Your task to perform on an android device: change the clock display to show seconds Image 0: 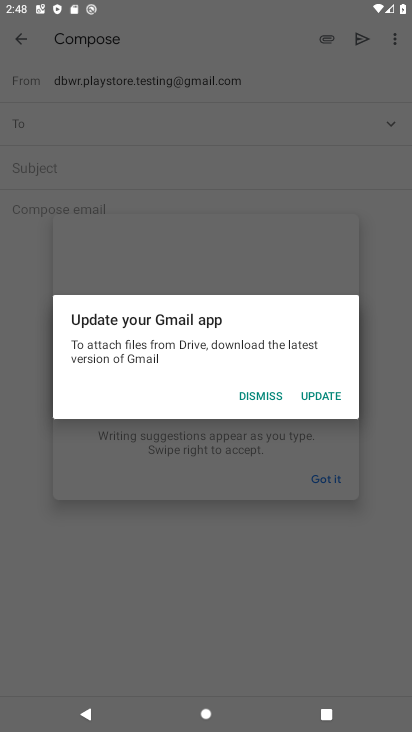
Step 0: press home button
Your task to perform on an android device: change the clock display to show seconds Image 1: 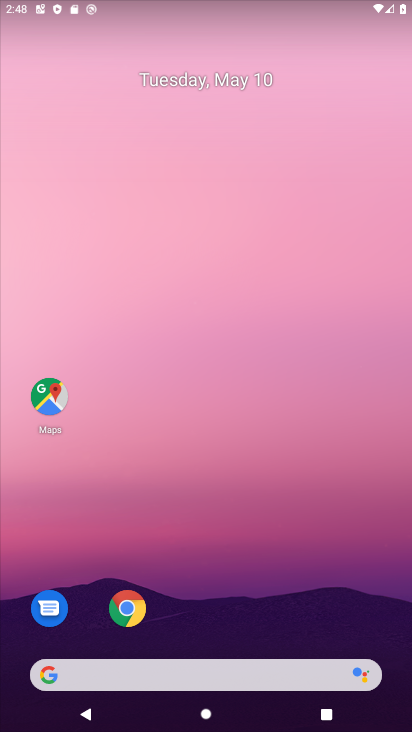
Step 1: drag from (179, 617) to (215, 97)
Your task to perform on an android device: change the clock display to show seconds Image 2: 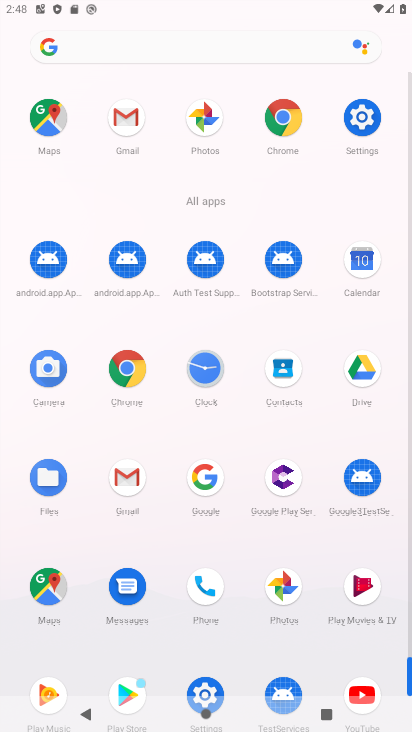
Step 2: click (217, 374)
Your task to perform on an android device: change the clock display to show seconds Image 3: 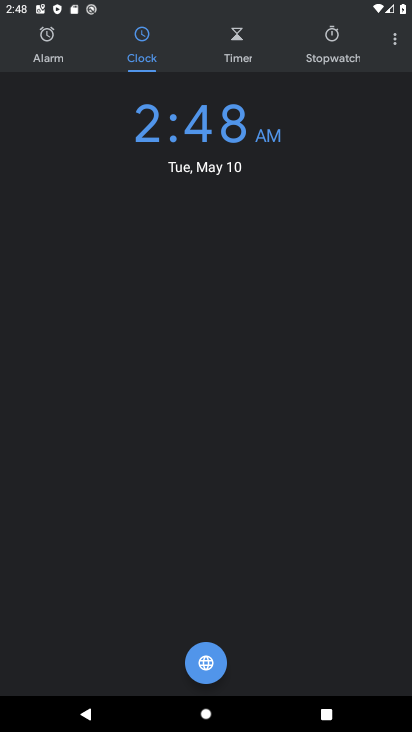
Step 3: click (401, 55)
Your task to perform on an android device: change the clock display to show seconds Image 4: 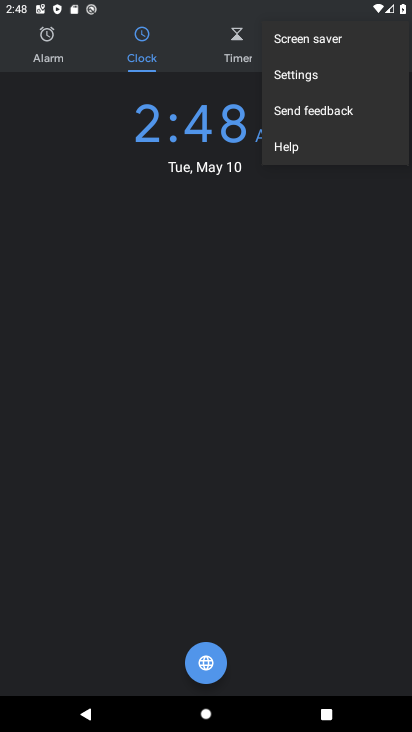
Step 4: click (296, 85)
Your task to perform on an android device: change the clock display to show seconds Image 5: 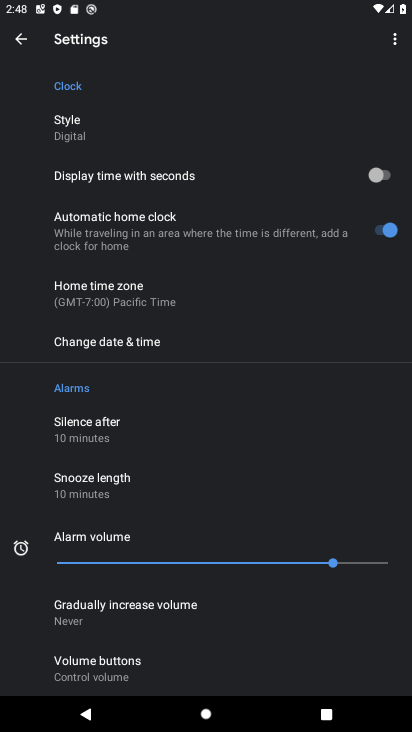
Step 5: click (103, 129)
Your task to perform on an android device: change the clock display to show seconds Image 6: 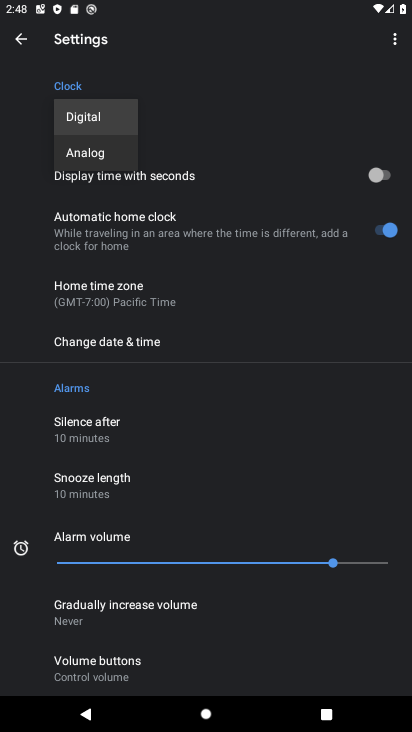
Step 6: click (94, 160)
Your task to perform on an android device: change the clock display to show seconds Image 7: 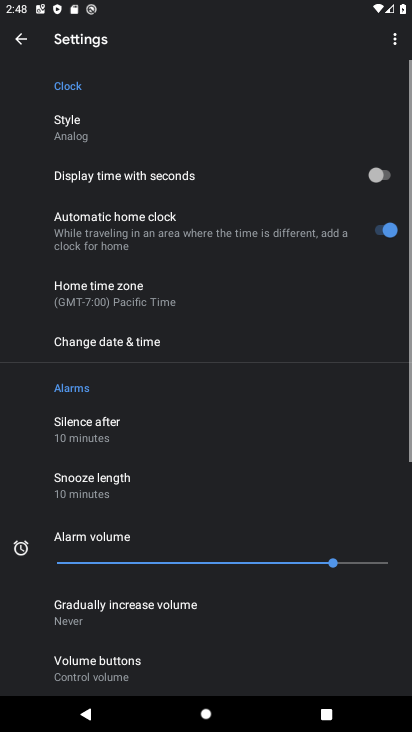
Step 7: click (388, 174)
Your task to perform on an android device: change the clock display to show seconds Image 8: 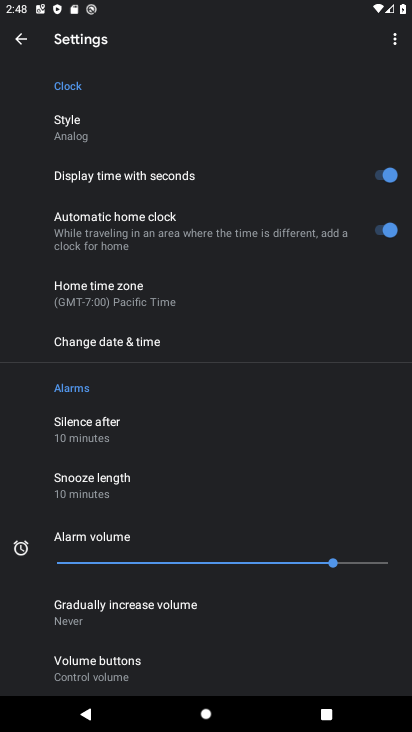
Step 8: task complete